Your task to perform on an android device: Open the map Image 0: 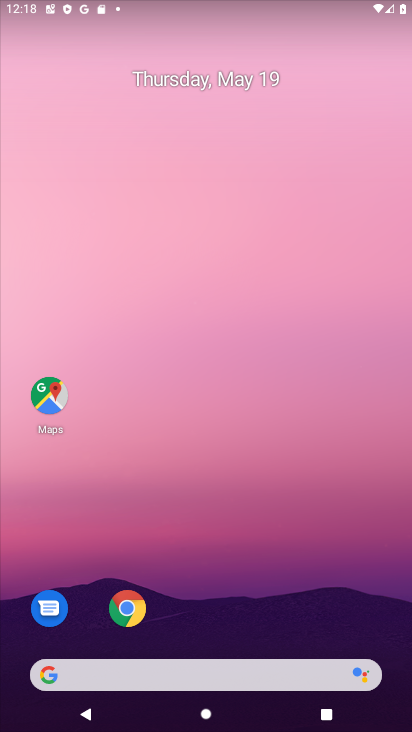
Step 0: drag from (258, 346) to (281, 442)
Your task to perform on an android device: Open the map Image 1: 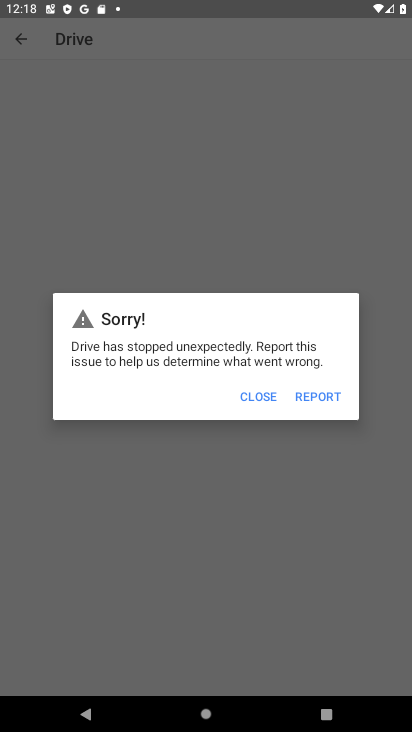
Step 1: drag from (304, 270) to (284, 418)
Your task to perform on an android device: Open the map Image 2: 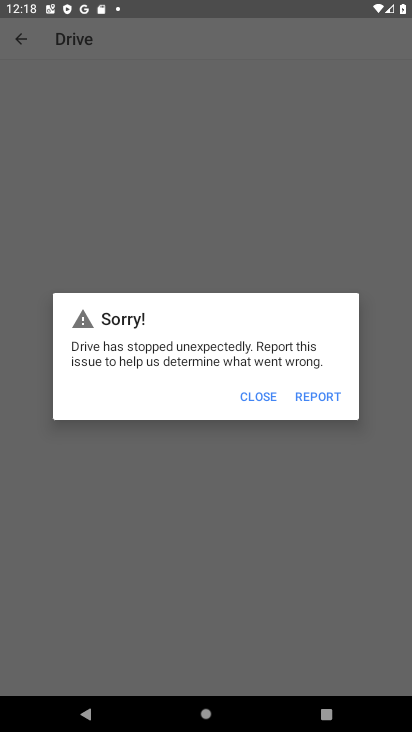
Step 2: press home button
Your task to perform on an android device: Open the map Image 3: 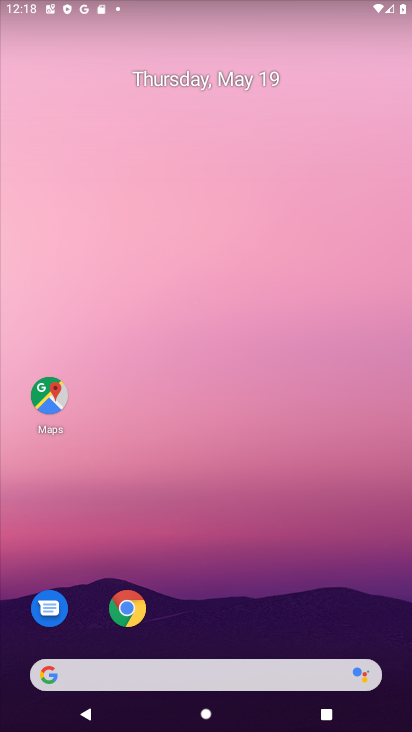
Step 3: drag from (219, 610) to (237, 220)
Your task to perform on an android device: Open the map Image 4: 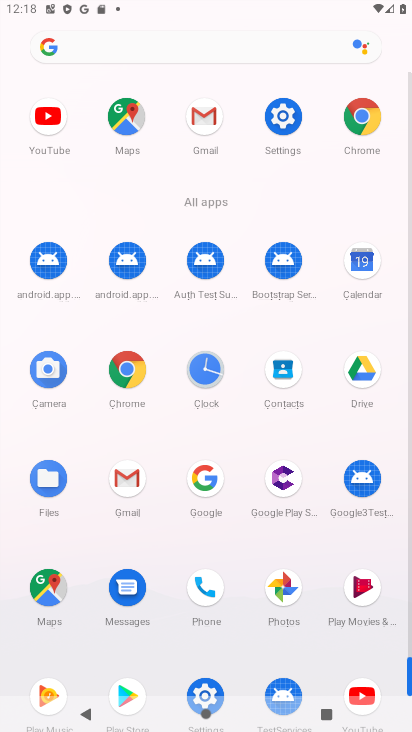
Step 4: click (38, 584)
Your task to perform on an android device: Open the map Image 5: 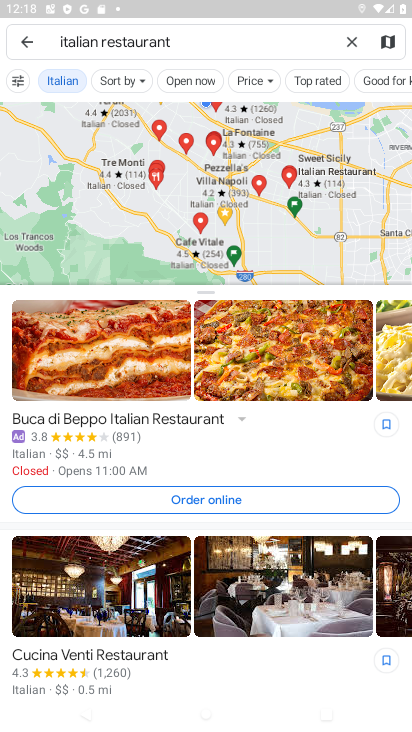
Step 5: task complete